Your task to perform on an android device: turn on location history Image 0: 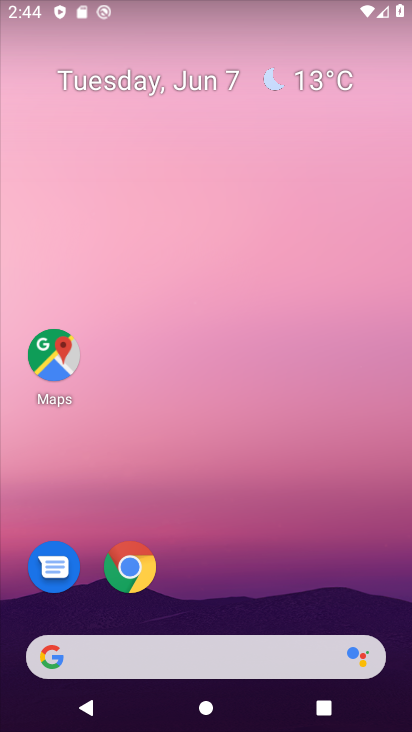
Step 0: press home button
Your task to perform on an android device: turn on location history Image 1: 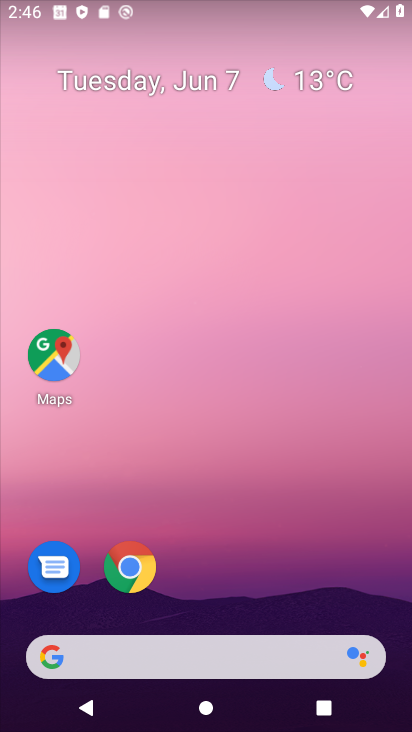
Step 1: click (46, 343)
Your task to perform on an android device: turn on location history Image 2: 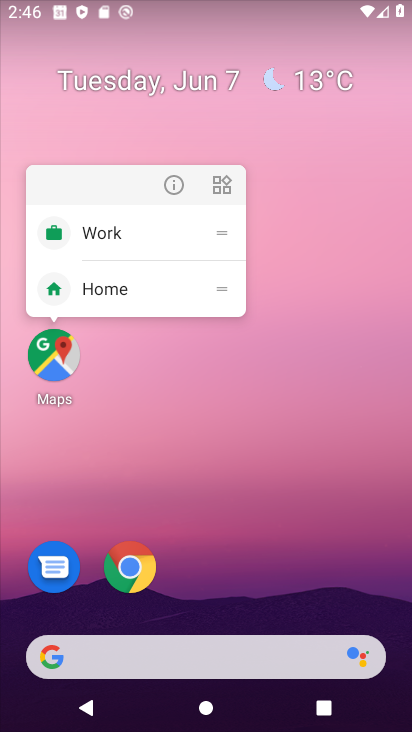
Step 2: click (46, 343)
Your task to perform on an android device: turn on location history Image 3: 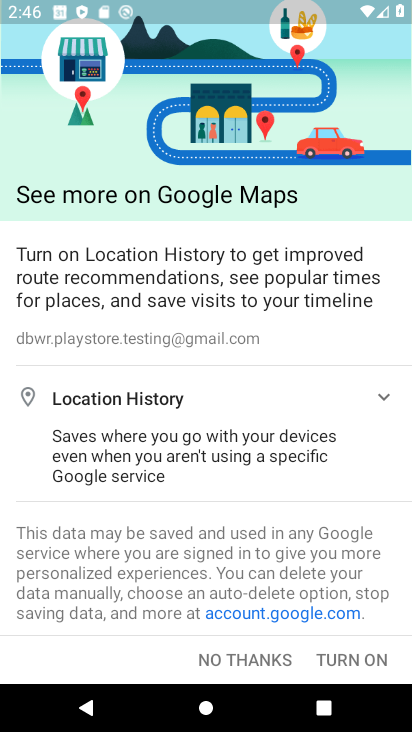
Step 3: click (357, 650)
Your task to perform on an android device: turn on location history Image 4: 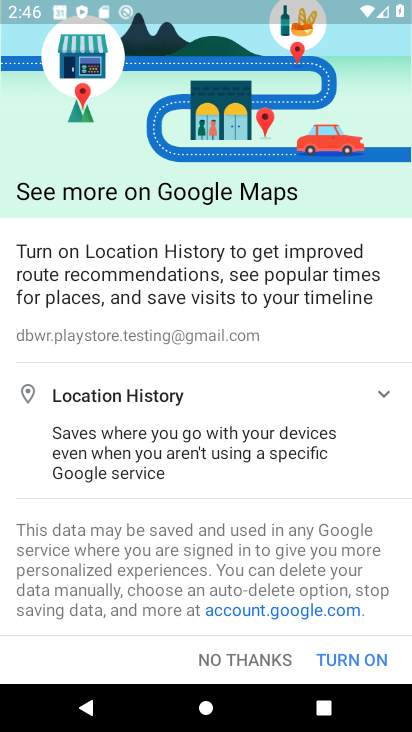
Step 4: click (356, 655)
Your task to perform on an android device: turn on location history Image 5: 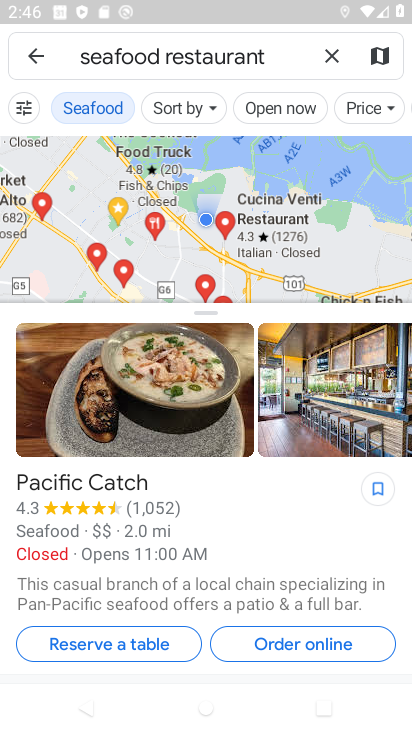
Step 5: task complete